Your task to perform on an android device: Add "rayovac triple a" to the cart on amazon, then select checkout. Image 0: 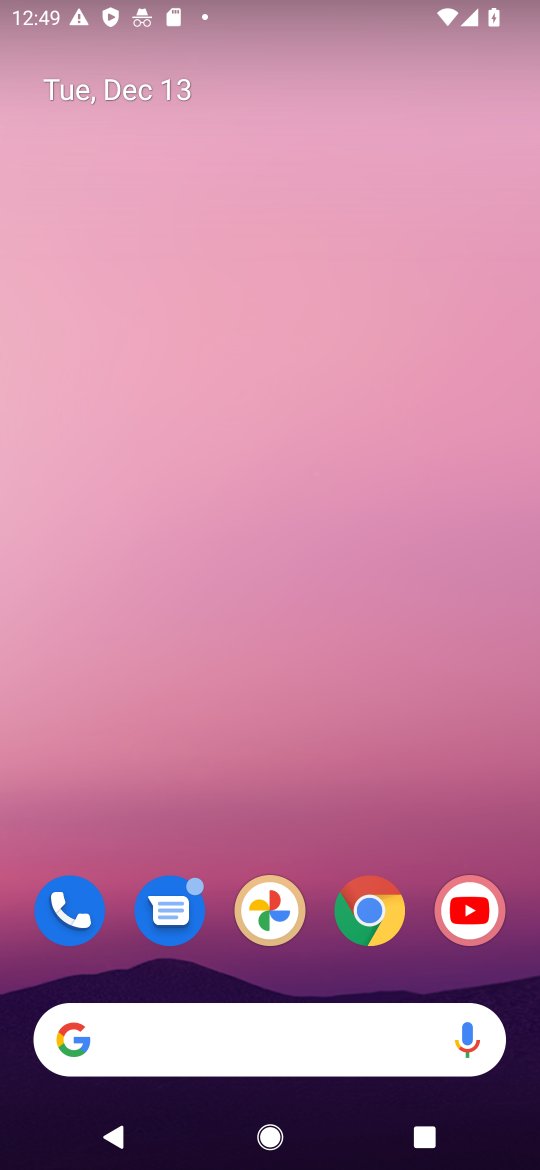
Step 0: click (361, 913)
Your task to perform on an android device: Add "rayovac triple a" to the cart on amazon, then select checkout. Image 1: 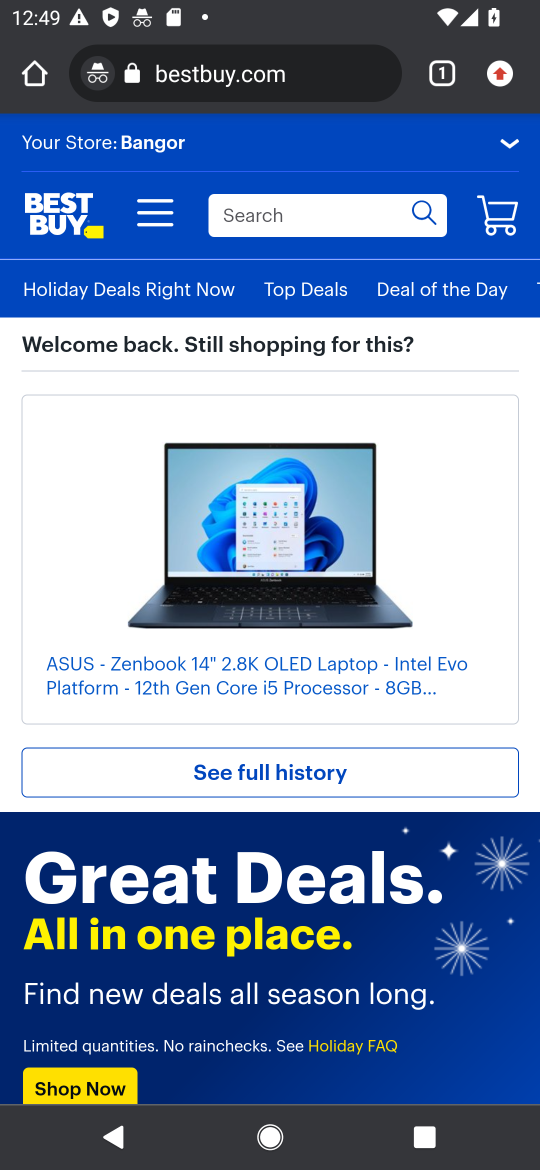
Step 1: click (303, 84)
Your task to perform on an android device: Add "rayovac triple a" to the cart on amazon, then select checkout. Image 2: 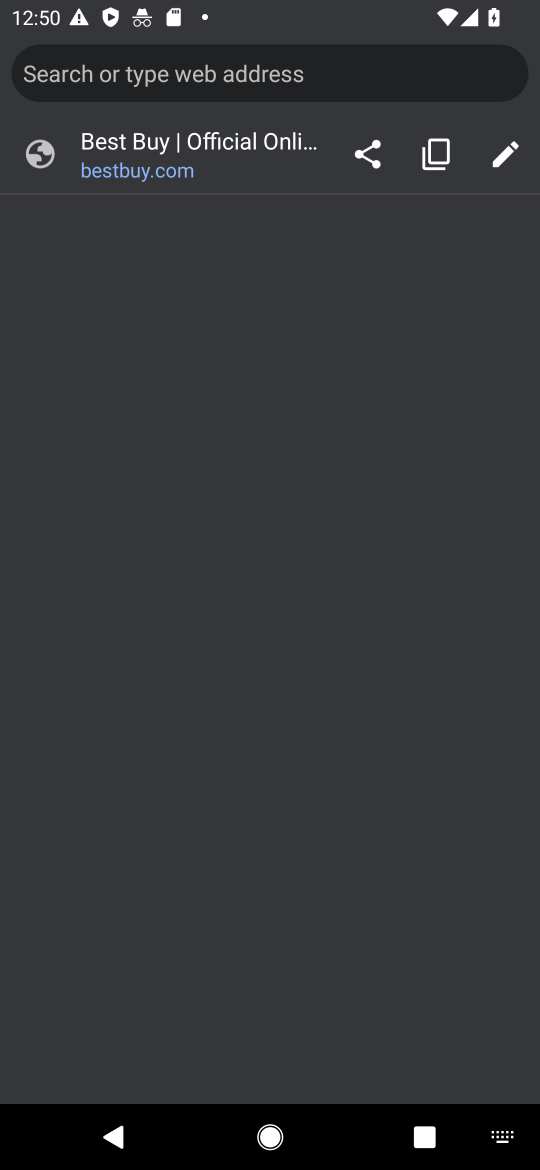
Step 2: type "AMAZON"
Your task to perform on an android device: Add "rayovac triple a" to the cart on amazon, then select checkout. Image 3: 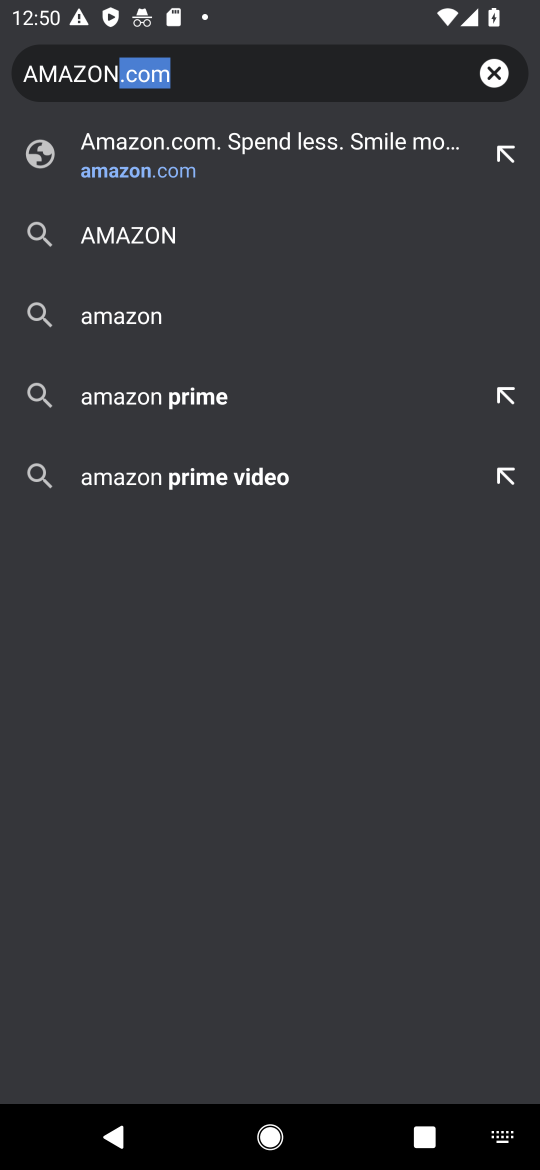
Step 3: click (153, 171)
Your task to perform on an android device: Add "rayovac triple a" to the cart on amazon, then select checkout. Image 4: 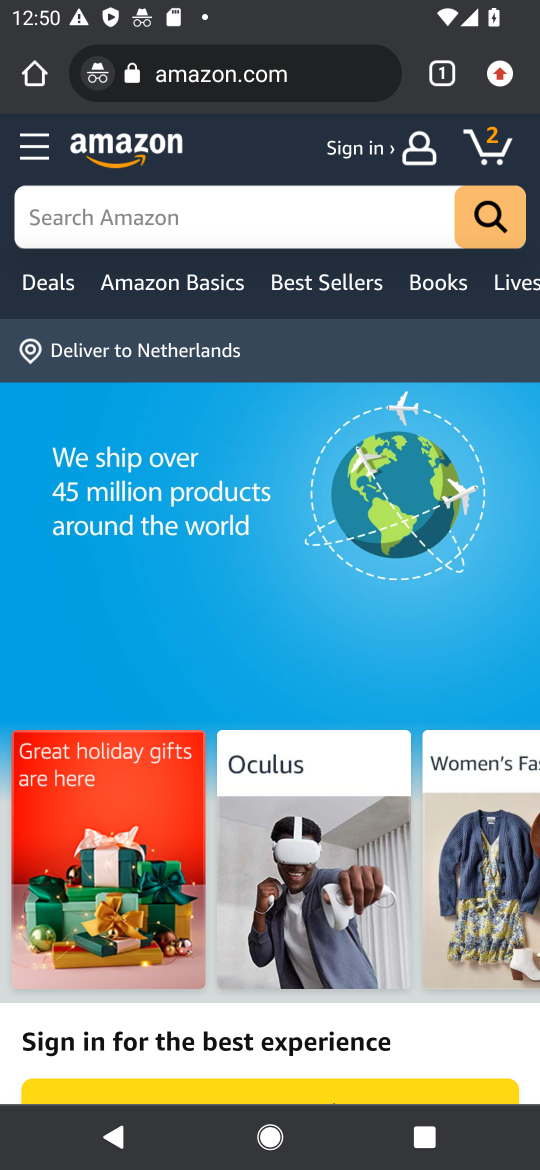
Step 4: click (267, 226)
Your task to perform on an android device: Add "rayovac triple a" to the cart on amazon, then select checkout. Image 5: 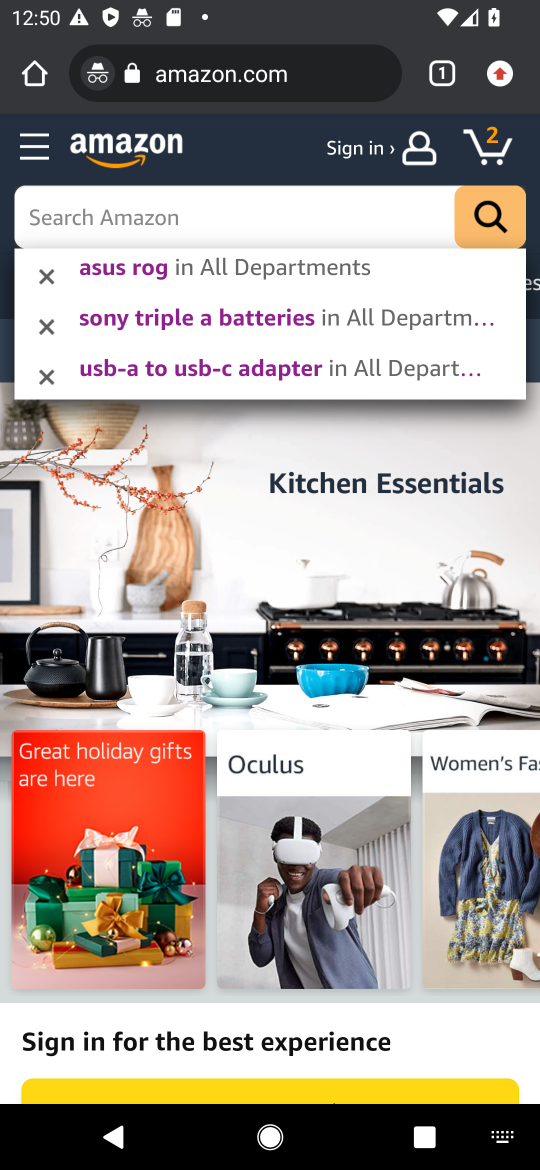
Step 5: type "rayovac triple a"
Your task to perform on an android device: Add "rayovac triple a" to the cart on amazon, then select checkout. Image 6: 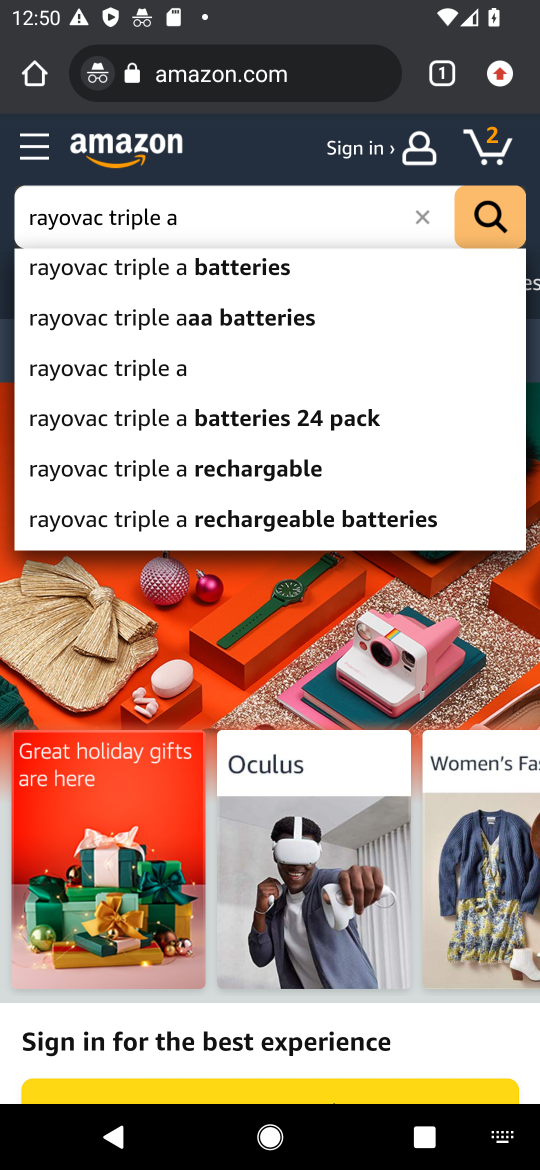
Step 6: click (159, 272)
Your task to perform on an android device: Add "rayovac triple a" to the cart on amazon, then select checkout. Image 7: 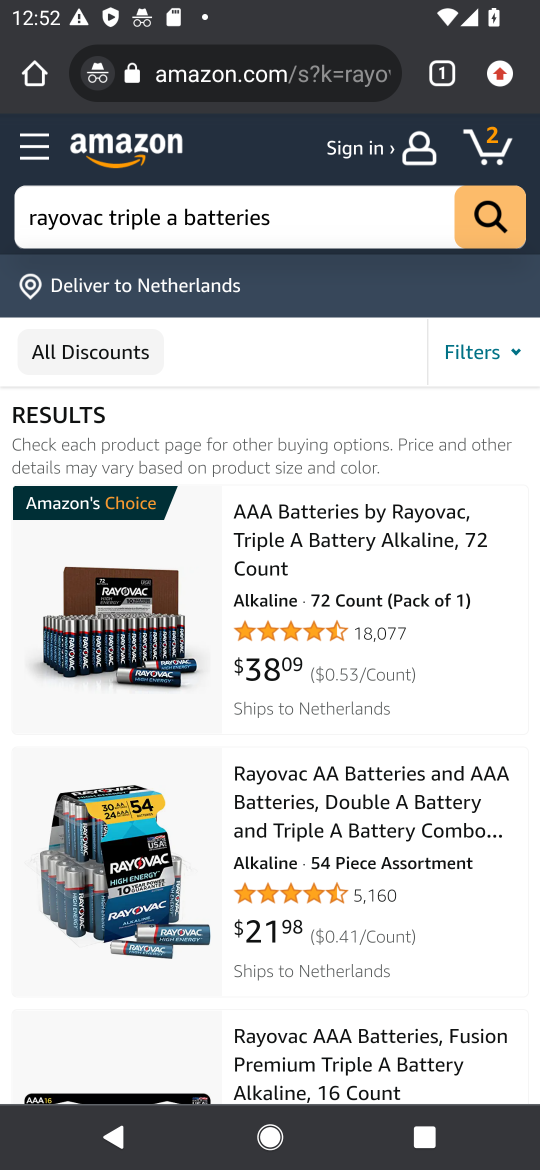
Step 7: click (300, 556)
Your task to perform on an android device: Add "rayovac triple a" to the cart on amazon, then select checkout. Image 8: 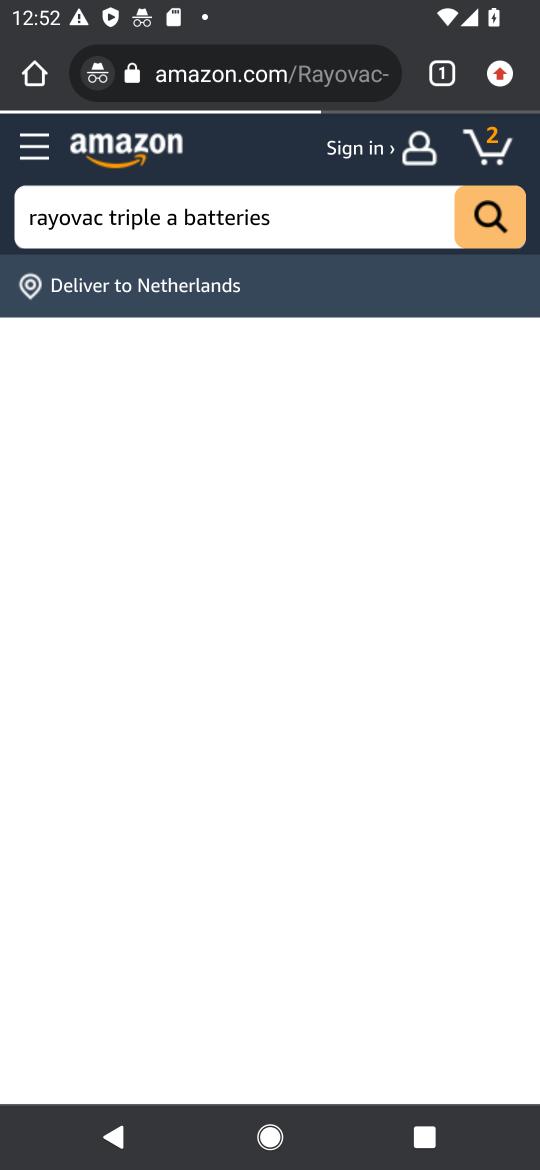
Step 8: task complete